Your task to perform on an android device: Open calendar and show me the second week of next month Image 0: 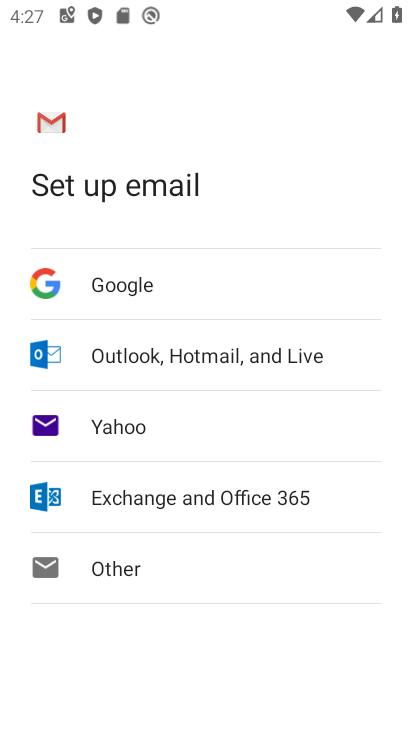
Step 0: press home button
Your task to perform on an android device: Open calendar and show me the second week of next month Image 1: 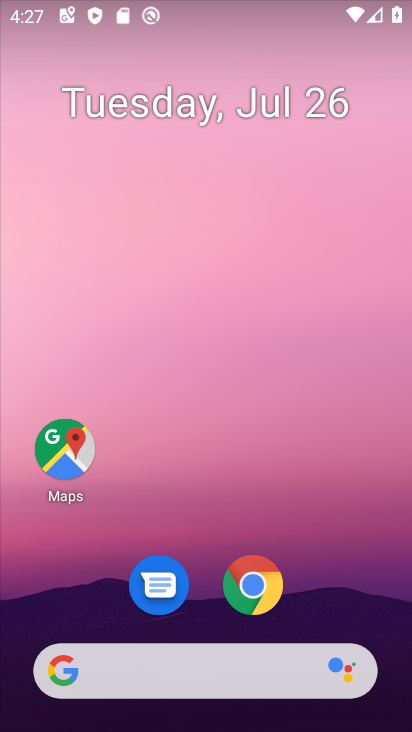
Step 1: drag from (327, 584) to (344, 23)
Your task to perform on an android device: Open calendar and show me the second week of next month Image 2: 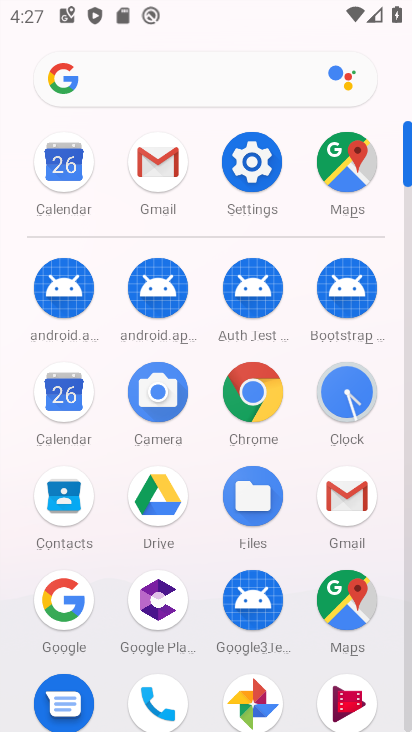
Step 2: click (69, 168)
Your task to perform on an android device: Open calendar and show me the second week of next month Image 3: 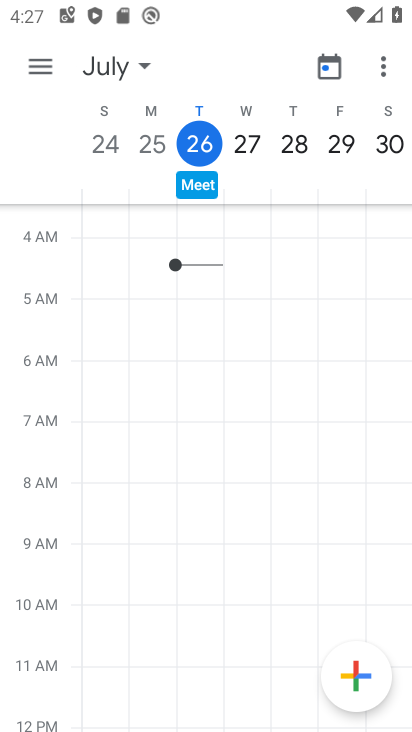
Step 3: task complete